Your task to perform on an android device: open wifi settings Image 0: 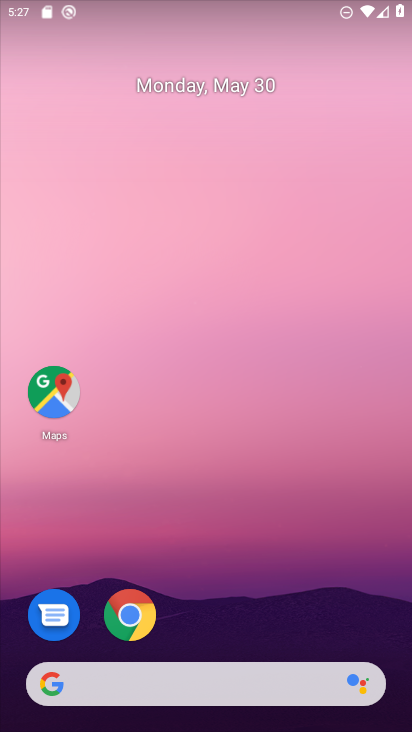
Step 0: drag from (200, 205) to (199, 483)
Your task to perform on an android device: open wifi settings Image 1: 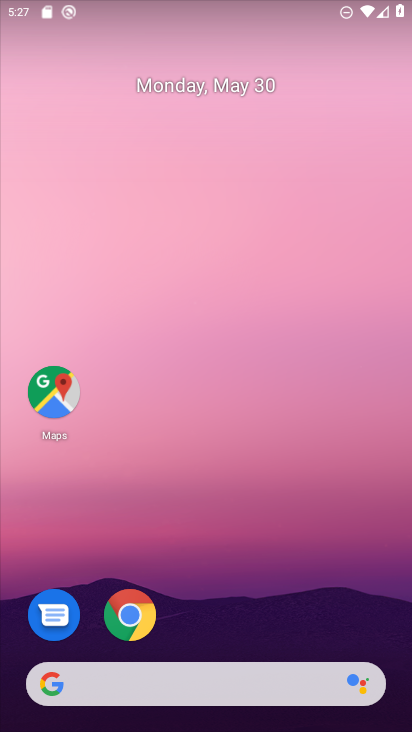
Step 1: drag from (132, 10) to (116, 444)
Your task to perform on an android device: open wifi settings Image 2: 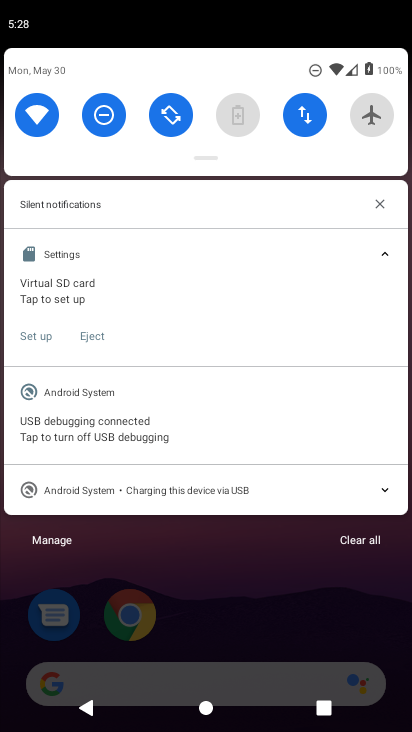
Step 2: click (34, 111)
Your task to perform on an android device: open wifi settings Image 3: 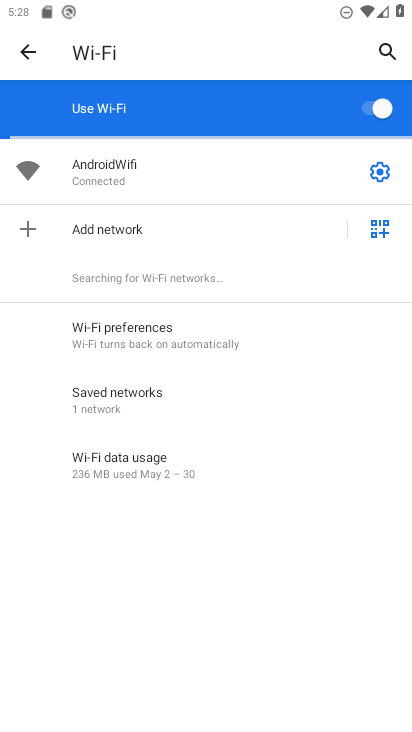
Step 3: task complete